Your task to perform on an android device: Open eBay Image 0: 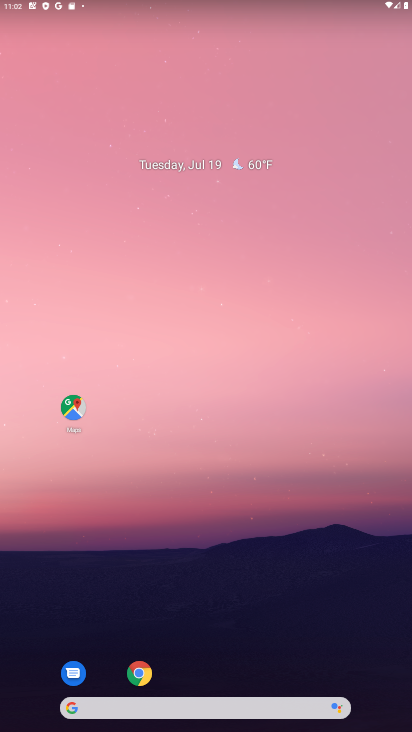
Step 0: click (137, 675)
Your task to perform on an android device: Open eBay Image 1: 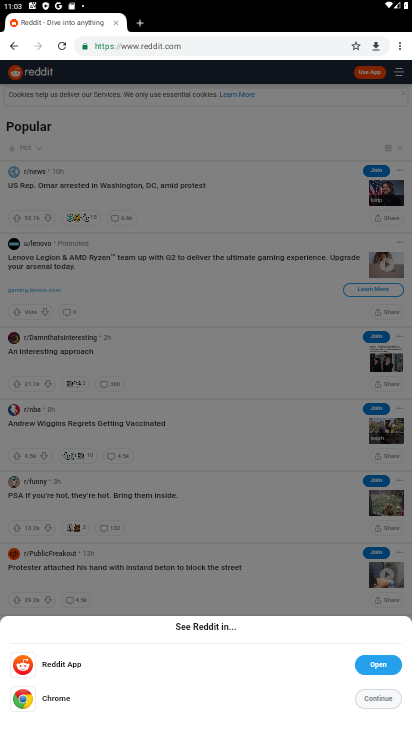
Step 1: click (204, 43)
Your task to perform on an android device: Open eBay Image 2: 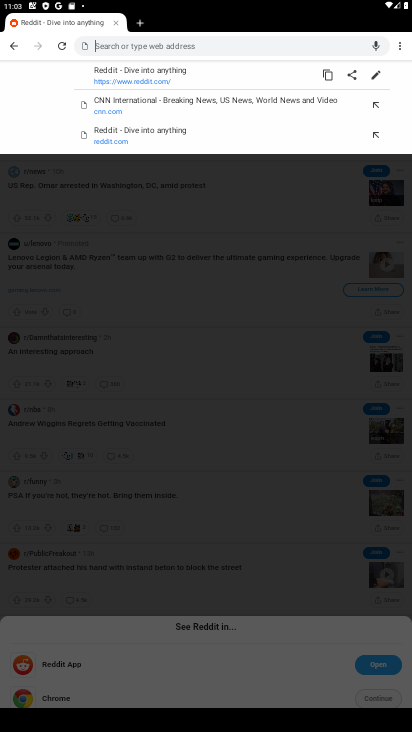
Step 2: type "ebay"
Your task to perform on an android device: Open eBay Image 3: 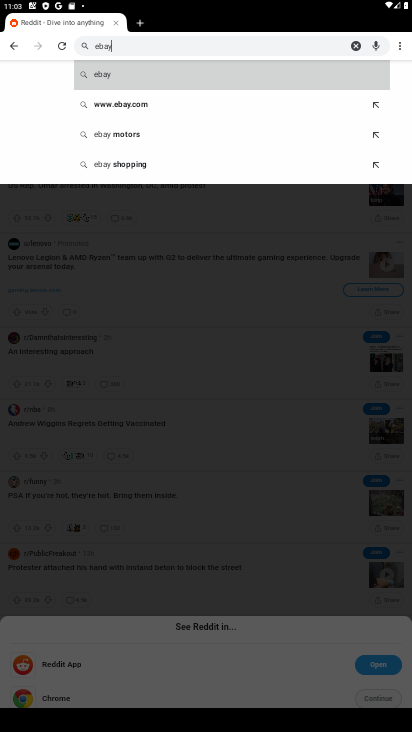
Step 3: click (112, 73)
Your task to perform on an android device: Open eBay Image 4: 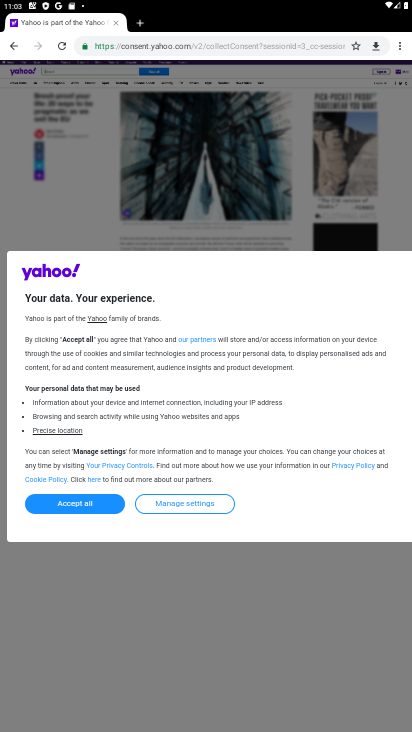
Step 4: click (77, 507)
Your task to perform on an android device: Open eBay Image 5: 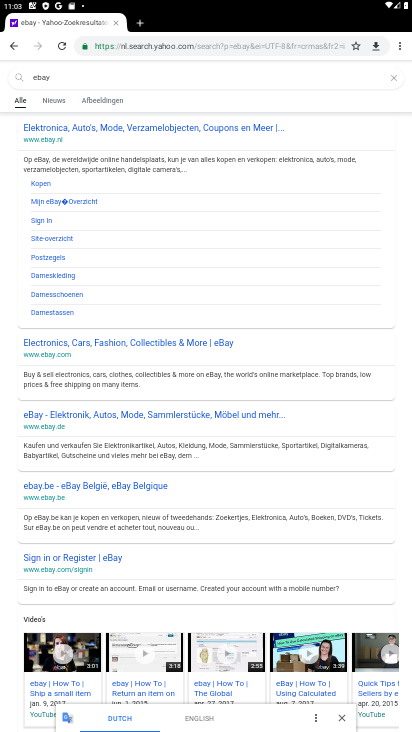
Step 5: click (47, 141)
Your task to perform on an android device: Open eBay Image 6: 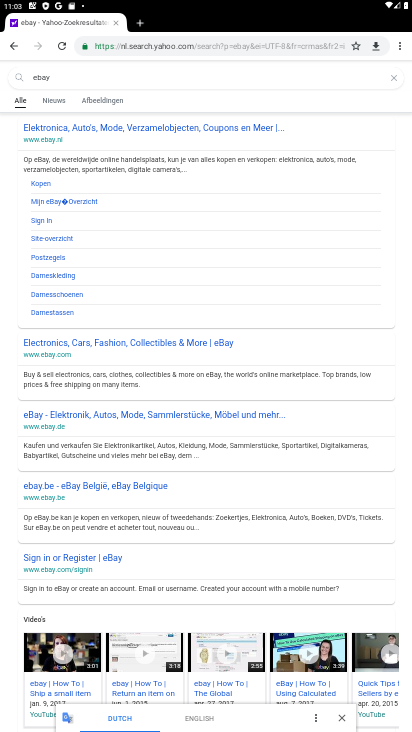
Step 6: click (42, 132)
Your task to perform on an android device: Open eBay Image 7: 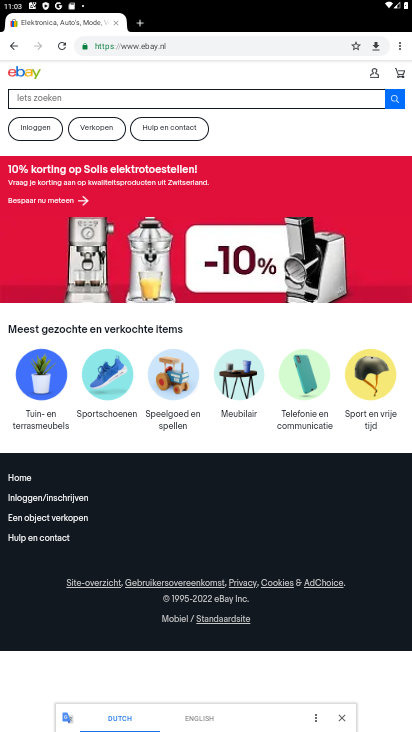
Step 7: task complete